Your task to perform on an android device: Open Youtube and go to "Your channel" Image 0: 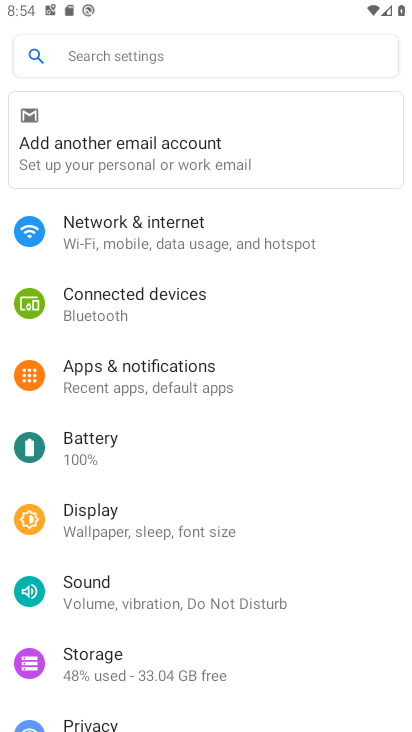
Step 0: press home button
Your task to perform on an android device: Open Youtube and go to "Your channel" Image 1: 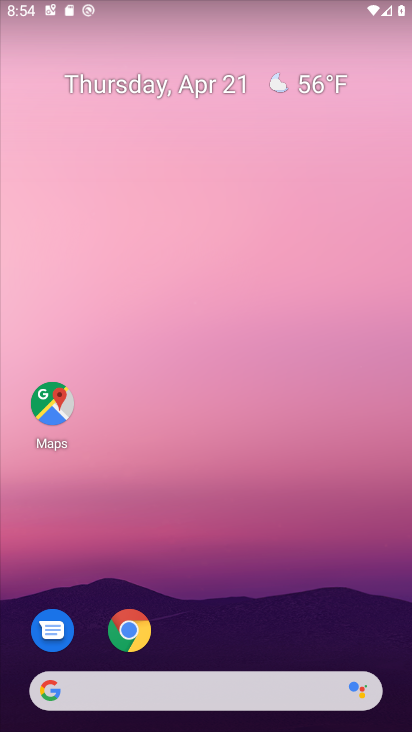
Step 1: drag from (210, 636) to (303, 65)
Your task to perform on an android device: Open Youtube and go to "Your channel" Image 2: 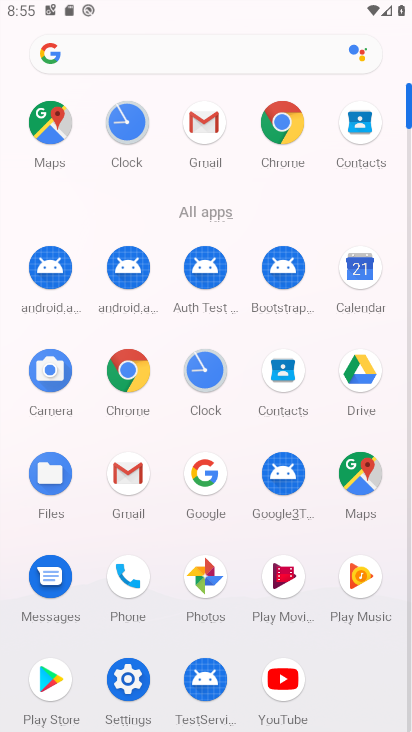
Step 2: click (274, 678)
Your task to perform on an android device: Open Youtube and go to "Your channel" Image 3: 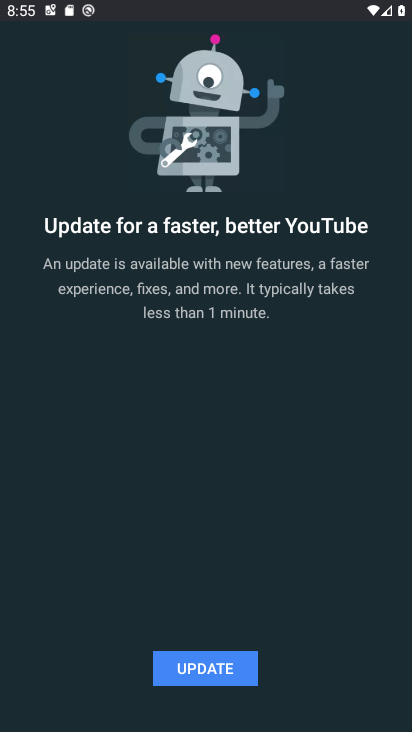
Step 3: click (173, 682)
Your task to perform on an android device: Open Youtube and go to "Your channel" Image 4: 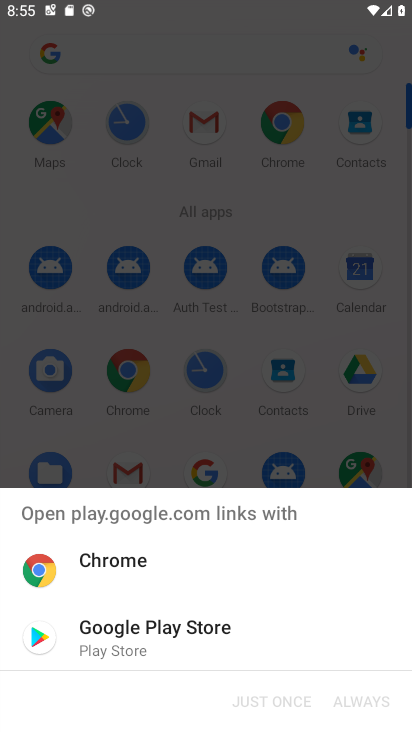
Step 4: click (159, 631)
Your task to perform on an android device: Open Youtube and go to "Your channel" Image 5: 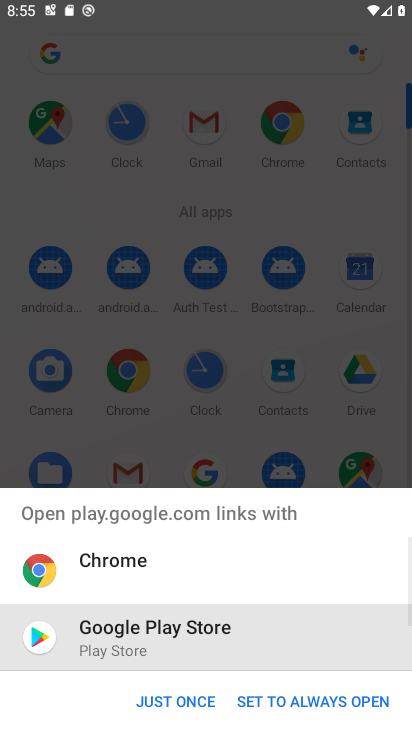
Step 5: click (173, 705)
Your task to perform on an android device: Open Youtube and go to "Your channel" Image 6: 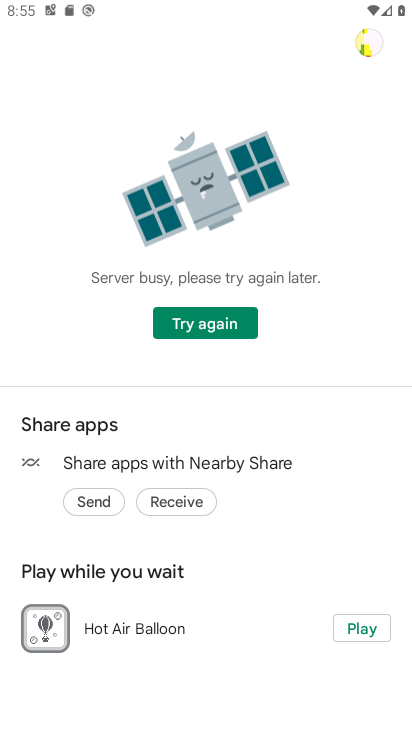
Step 6: click (187, 320)
Your task to perform on an android device: Open Youtube and go to "Your channel" Image 7: 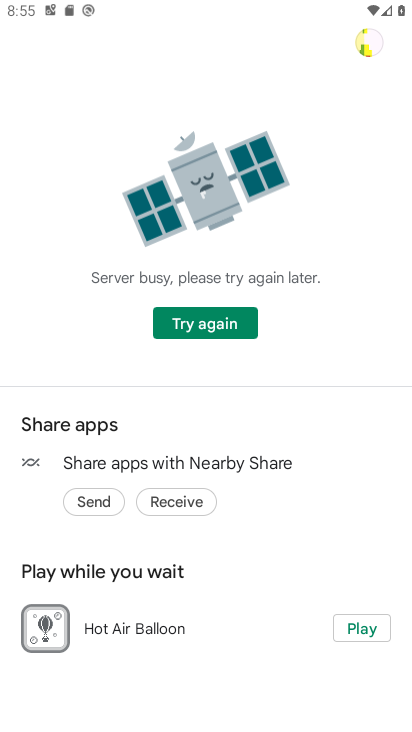
Step 7: click (186, 321)
Your task to perform on an android device: Open Youtube and go to "Your channel" Image 8: 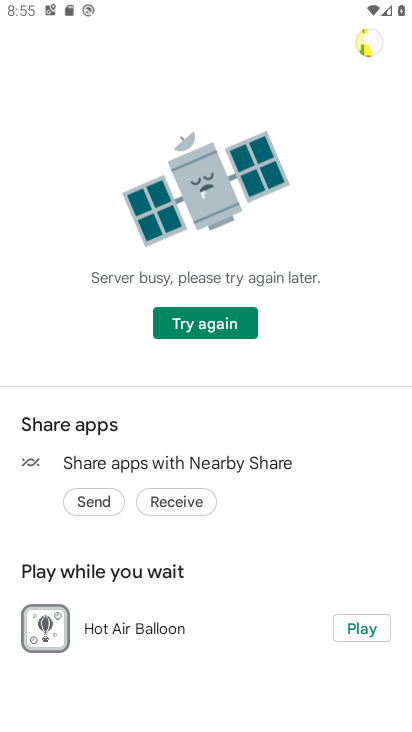
Step 8: task complete